Your task to perform on an android device: Go to Android settings Image 0: 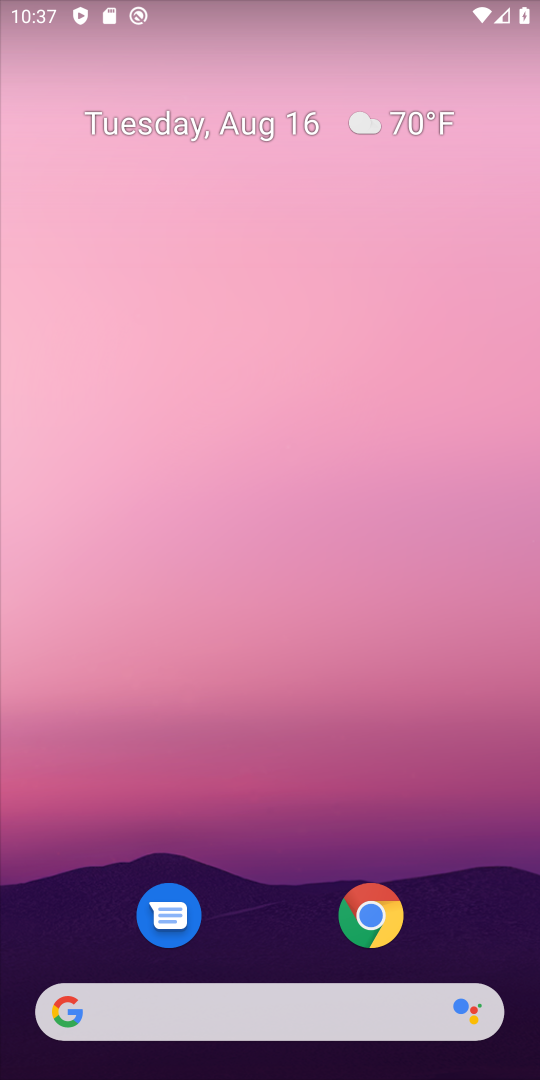
Step 0: drag from (266, 954) to (448, 47)
Your task to perform on an android device: Go to Android settings Image 1: 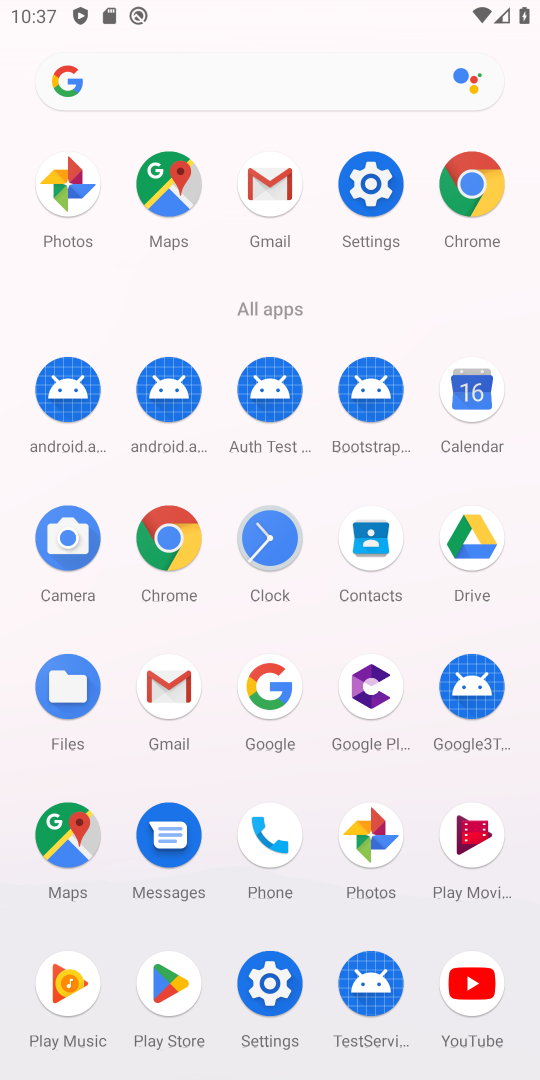
Step 1: click (259, 998)
Your task to perform on an android device: Go to Android settings Image 2: 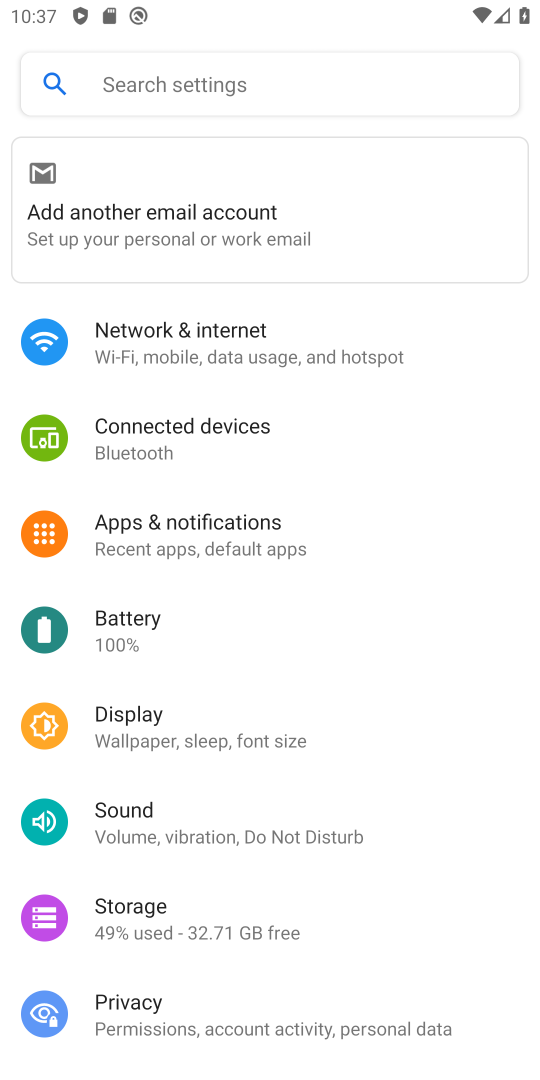
Step 2: task complete